Your task to perform on an android device: check out phone information Image 0: 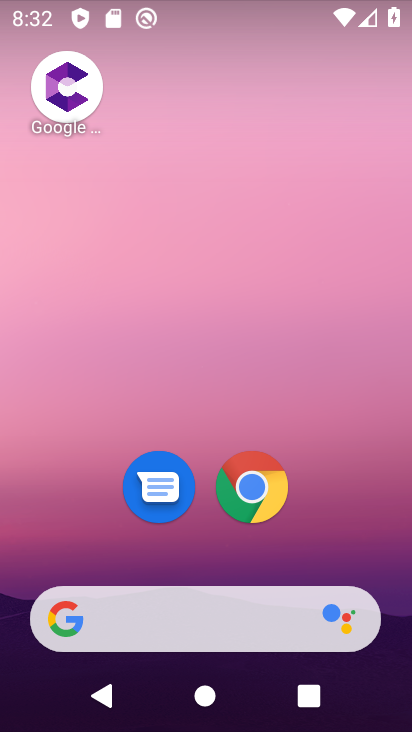
Step 0: drag from (336, 438) to (311, 93)
Your task to perform on an android device: check out phone information Image 1: 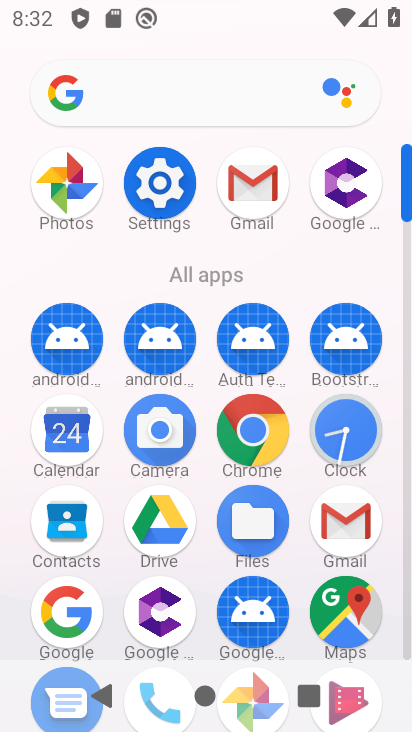
Step 1: drag from (210, 587) to (204, 371)
Your task to perform on an android device: check out phone information Image 2: 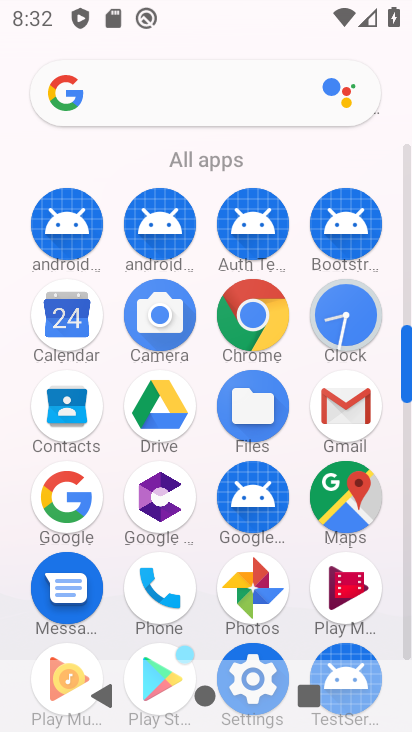
Step 2: click (171, 582)
Your task to perform on an android device: check out phone information Image 3: 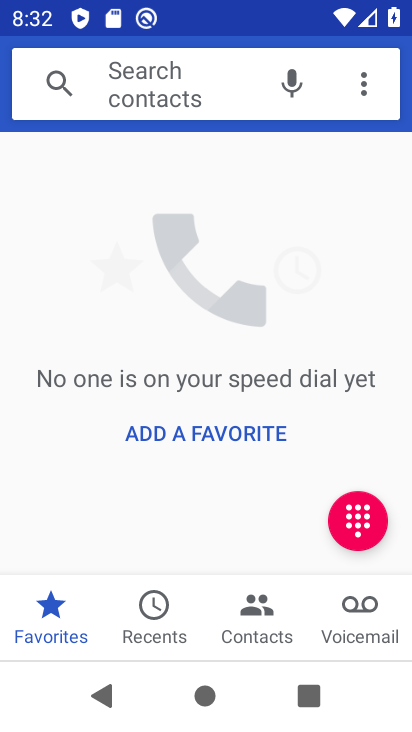
Step 3: click (365, 85)
Your task to perform on an android device: check out phone information Image 4: 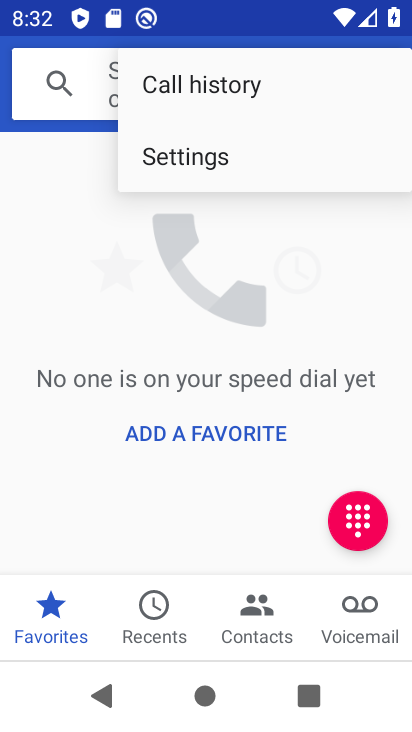
Step 4: click (211, 161)
Your task to perform on an android device: check out phone information Image 5: 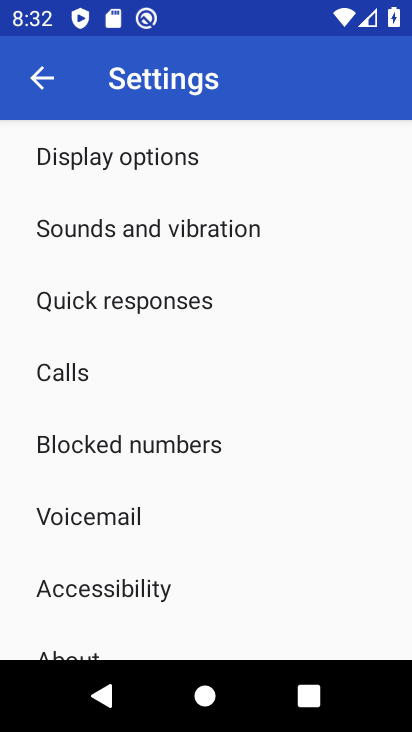
Step 5: click (86, 645)
Your task to perform on an android device: check out phone information Image 6: 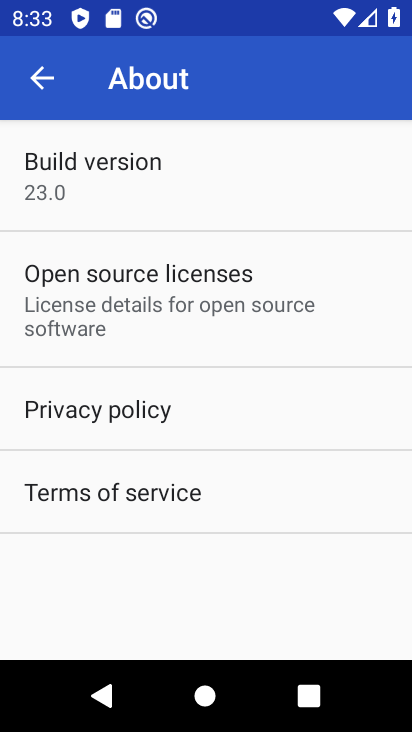
Step 6: task complete